Your task to perform on an android device: set the timer Image 0: 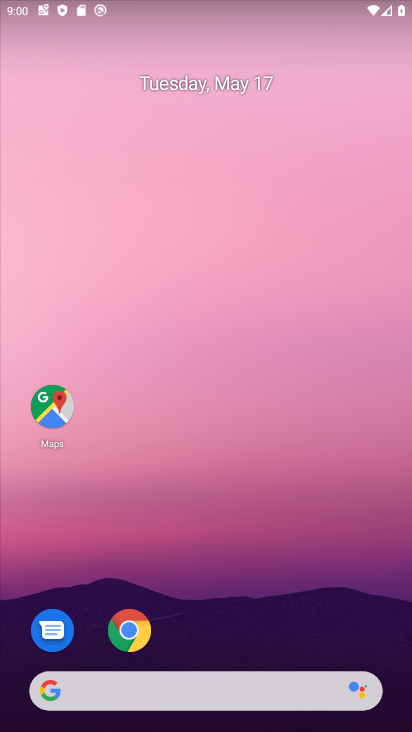
Step 0: drag from (227, 542) to (165, 166)
Your task to perform on an android device: set the timer Image 1: 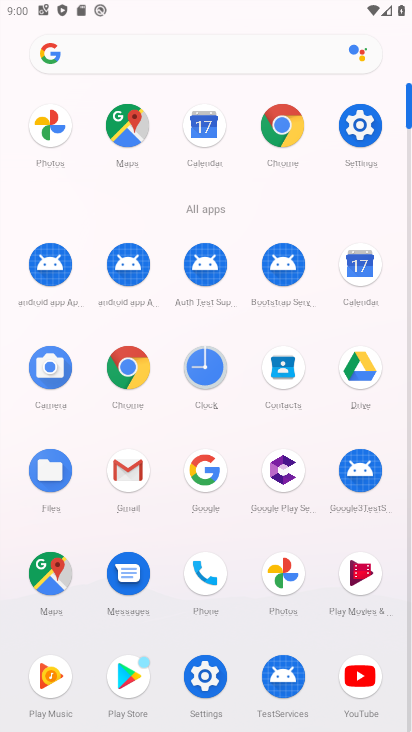
Step 1: click (216, 372)
Your task to perform on an android device: set the timer Image 2: 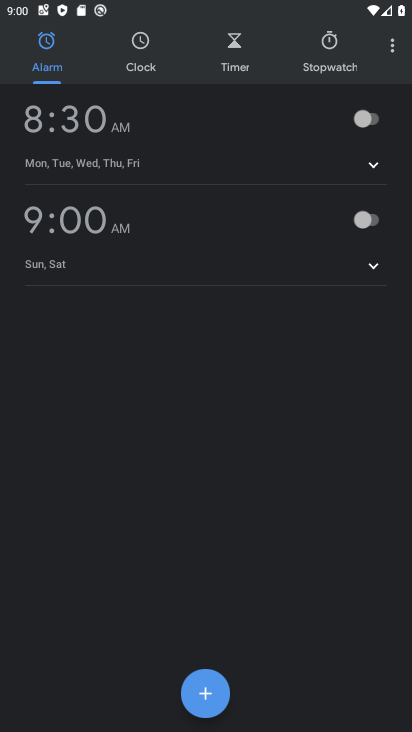
Step 2: click (233, 52)
Your task to perform on an android device: set the timer Image 3: 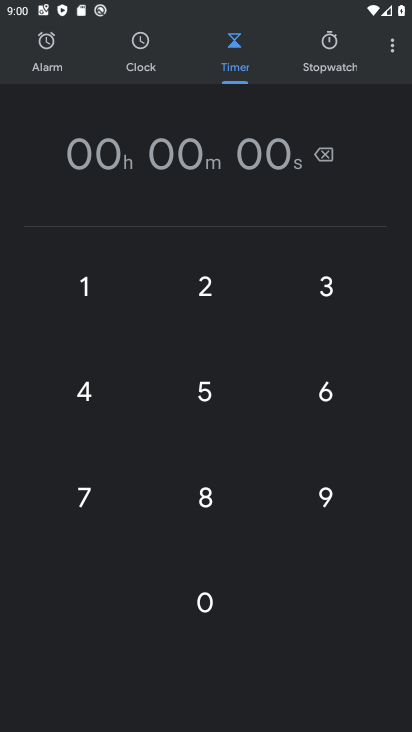
Step 3: click (201, 494)
Your task to perform on an android device: set the timer Image 4: 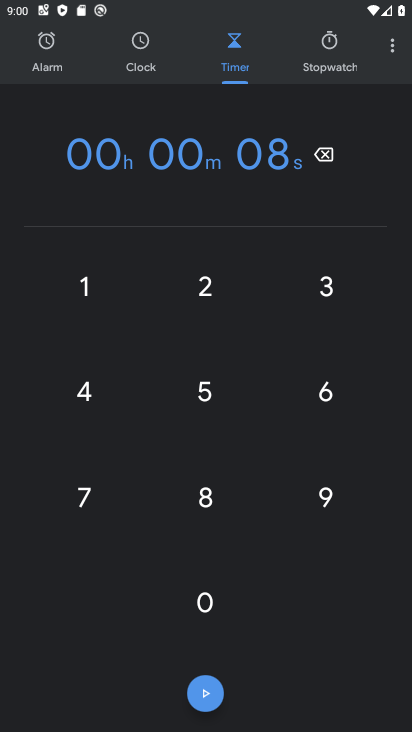
Step 4: click (212, 396)
Your task to perform on an android device: set the timer Image 5: 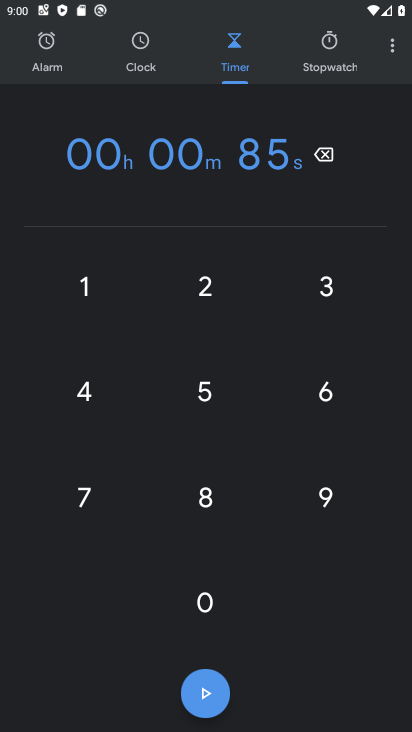
Step 5: click (86, 278)
Your task to perform on an android device: set the timer Image 6: 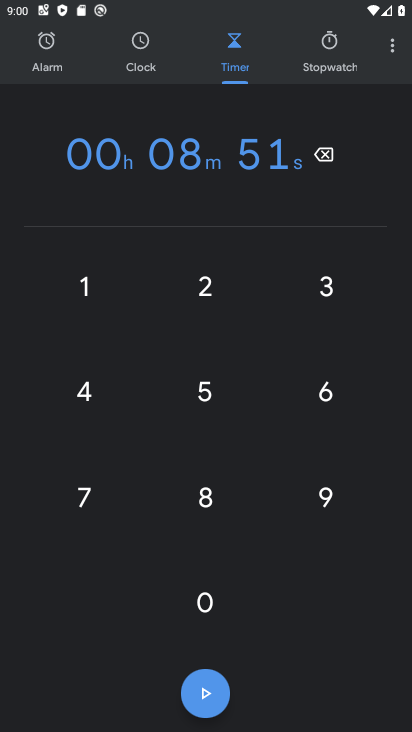
Step 6: click (321, 497)
Your task to perform on an android device: set the timer Image 7: 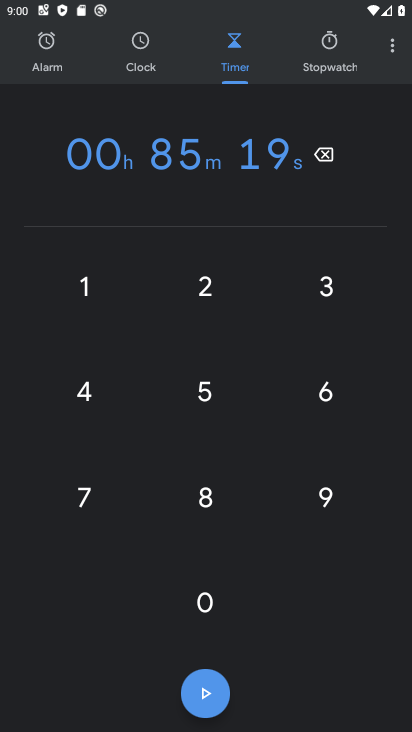
Step 7: click (200, 496)
Your task to perform on an android device: set the timer Image 8: 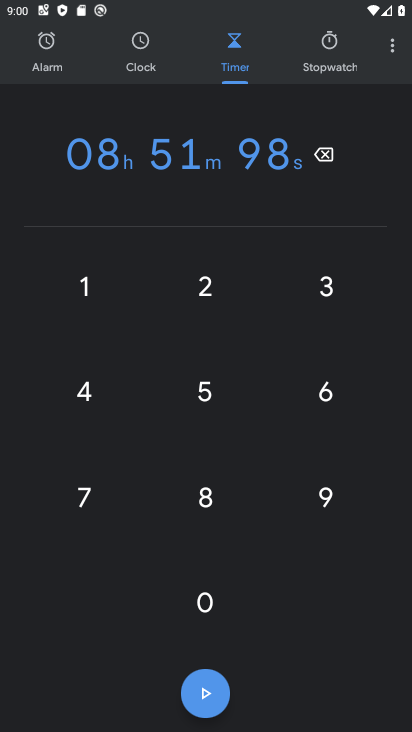
Step 8: click (209, 702)
Your task to perform on an android device: set the timer Image 9: 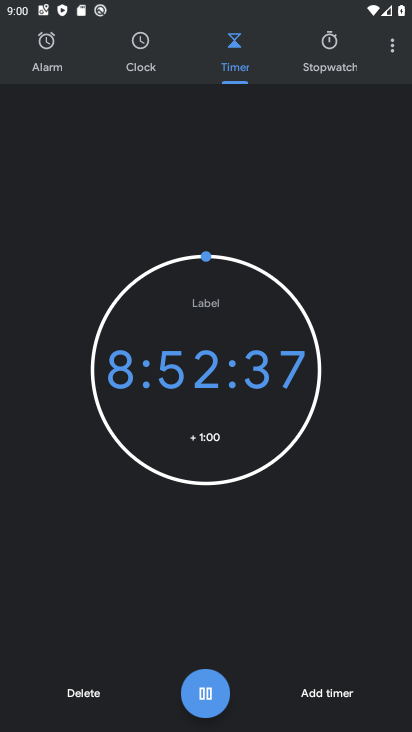
Step 9: click (342, 697)
Your task to perform on an android device: set the timer Image 10: 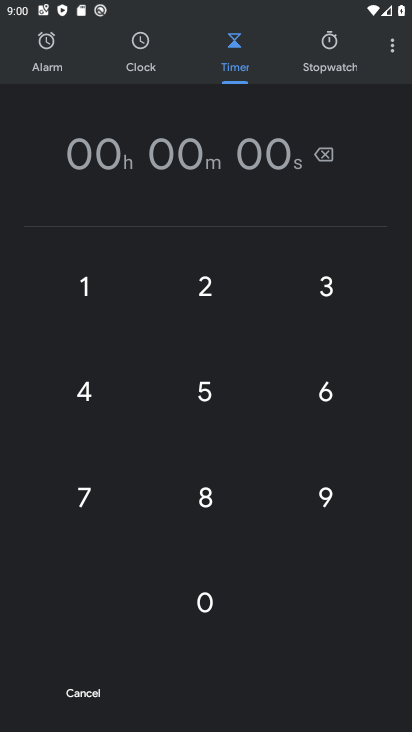
Step 10: task complete